Your task to perform on an android device: What time is it in New York? Image 0: 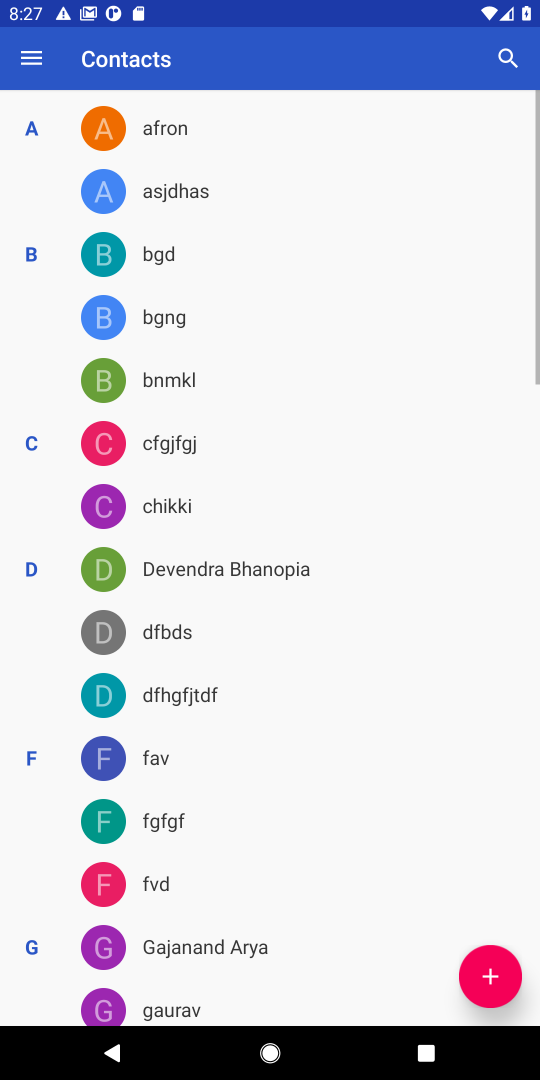
Step 0: press home button
Your task to perform on an android device: What time is it in New York? Image 1: 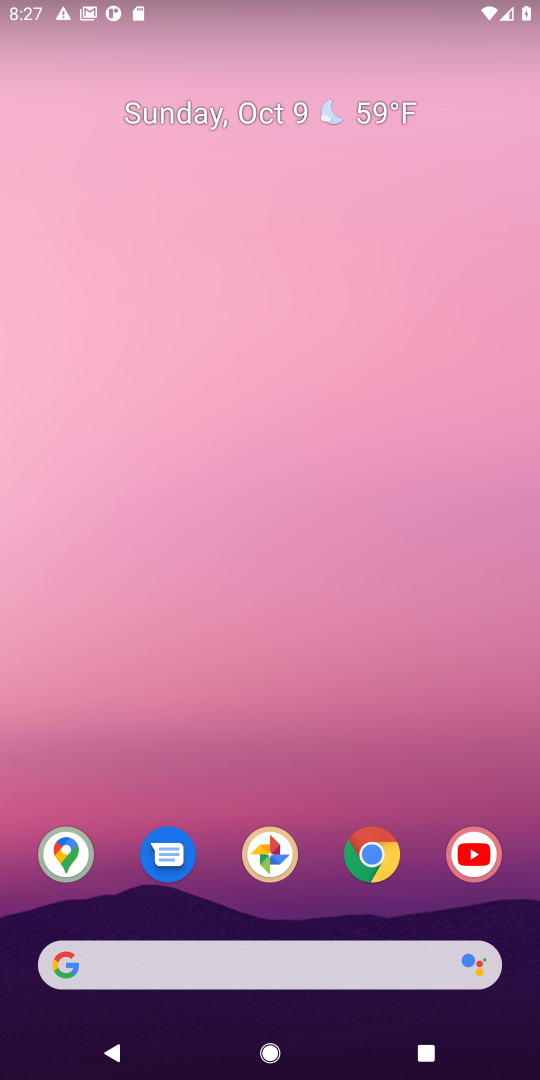
Step 1: drag from (306, 918) to (350, 39)
Your task to perform on an android device: What time is it in New York? Image 2: 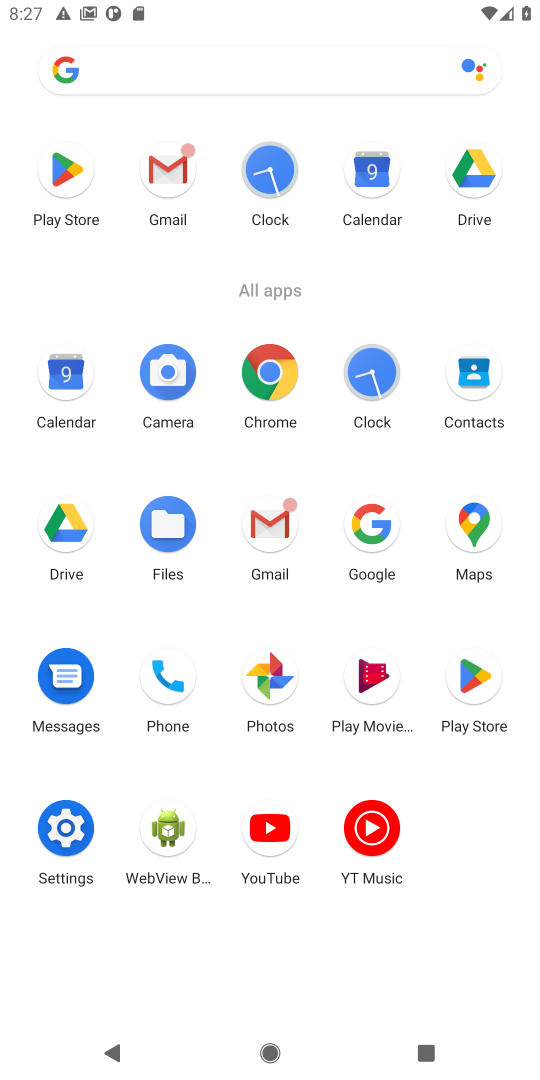
Step 2: click (367, 531)
Your task to perform on an android device: What time is it in New York? Image 3: 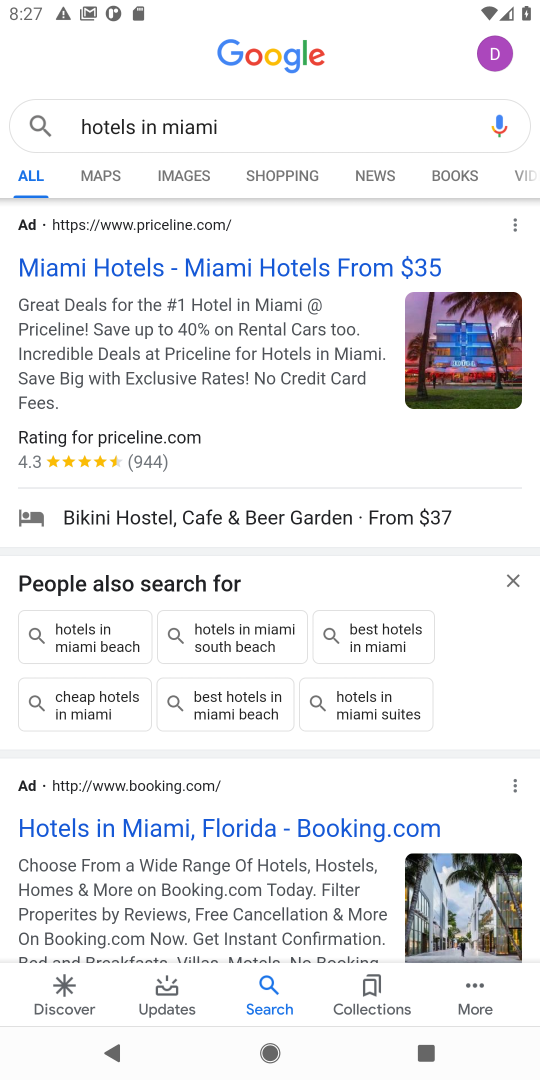
Step 3: click (289, 129)
Your task to perform on an android device: What time is it in New York? Image 4: 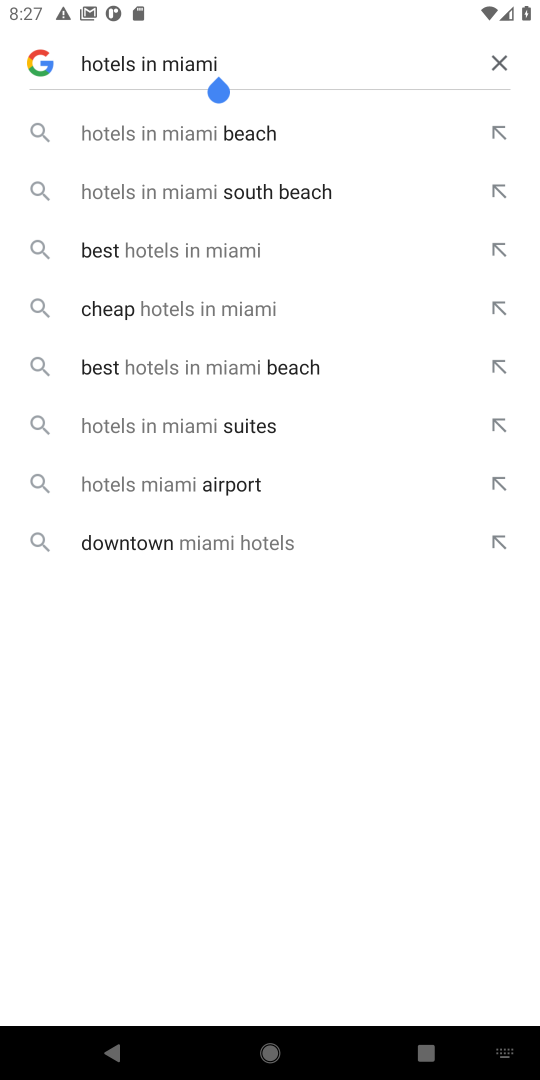
Step 4: click (499, 60)
Your task to perform on an android device: What time is it in New York? Image 5: 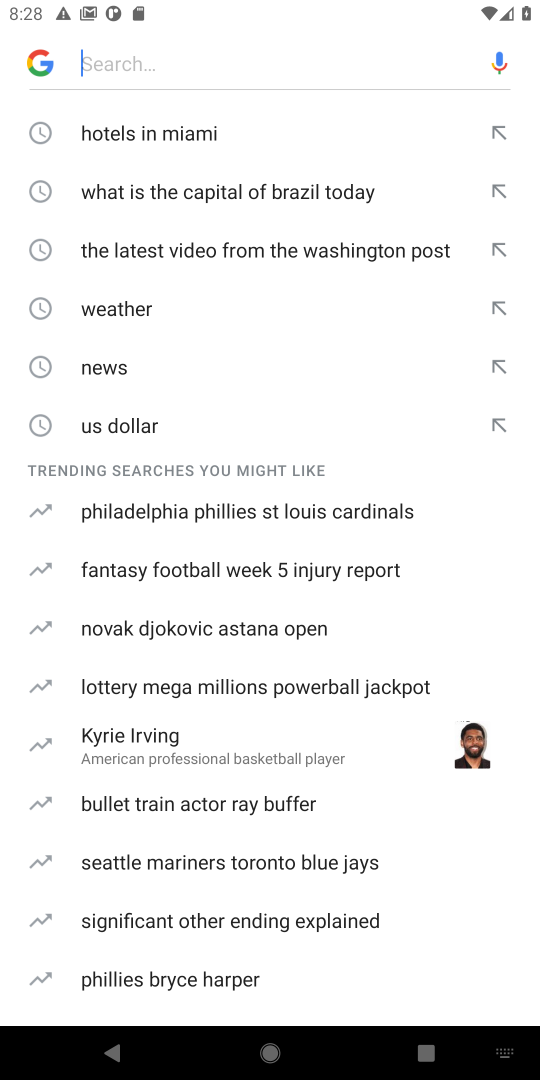
Step 5: type "What time is it in New York?"
Your task to perform on an android device: What time is it in New York? Image 6: 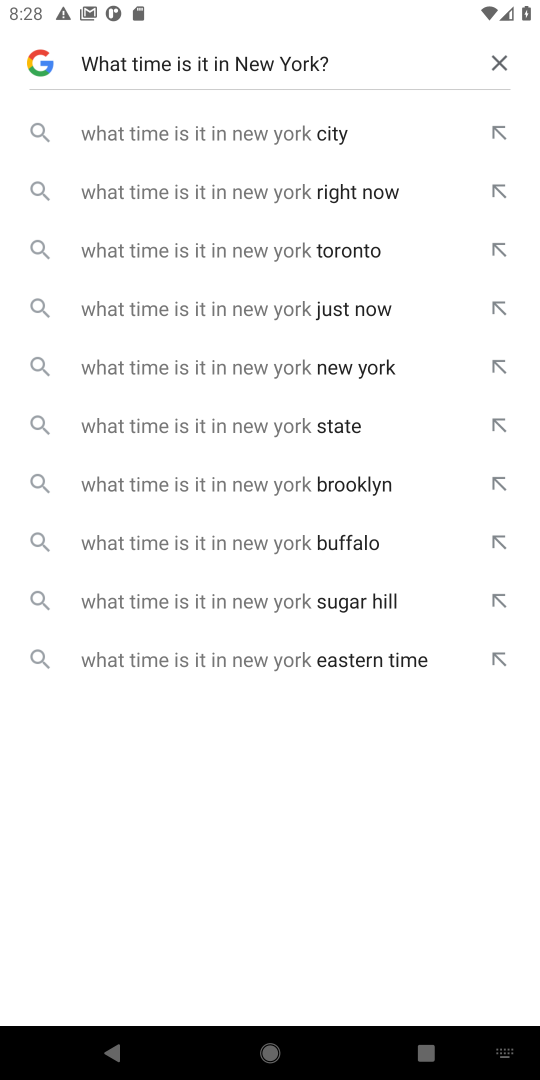
Step 6: click (204, 62)
Your task to perform on an android device: What time is it in New York? Image 7: 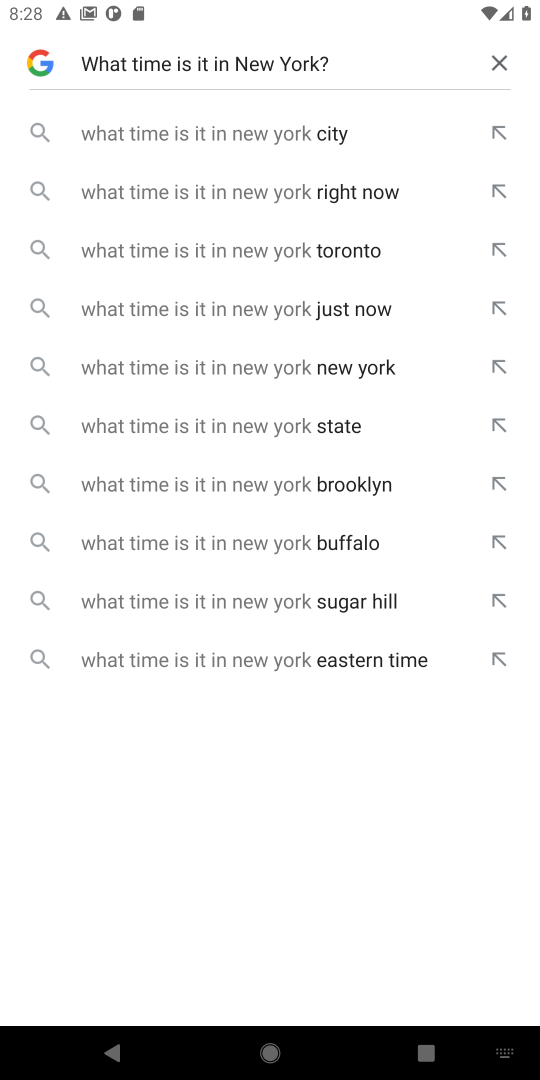
Step 7: click (254, 192)
Your task to perform on an android device: What time is it in New York? Image 8: 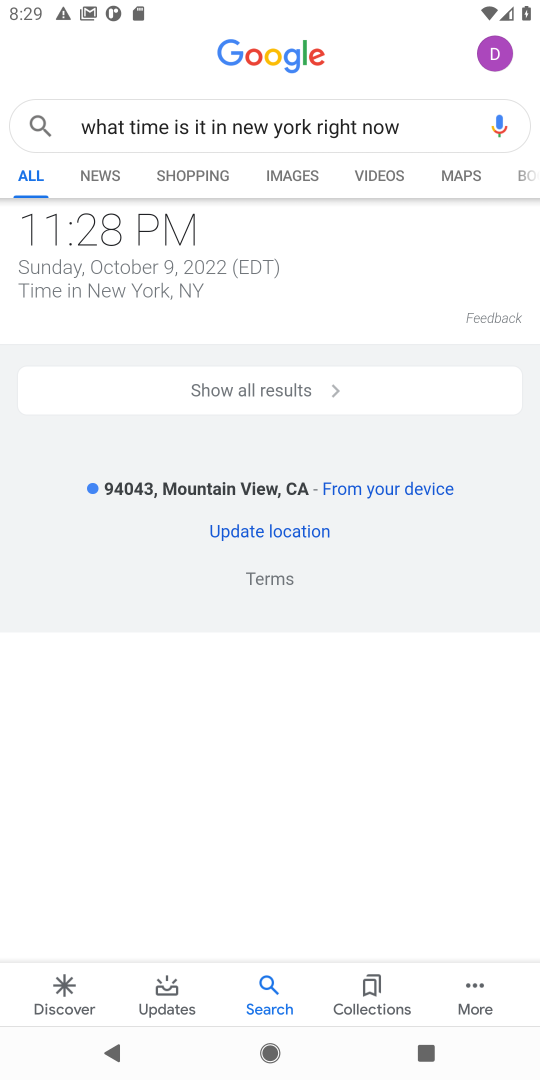
Step 8: task complete